Your task to perform on an android device: turn off notifications settings in the gmail app Image 0: 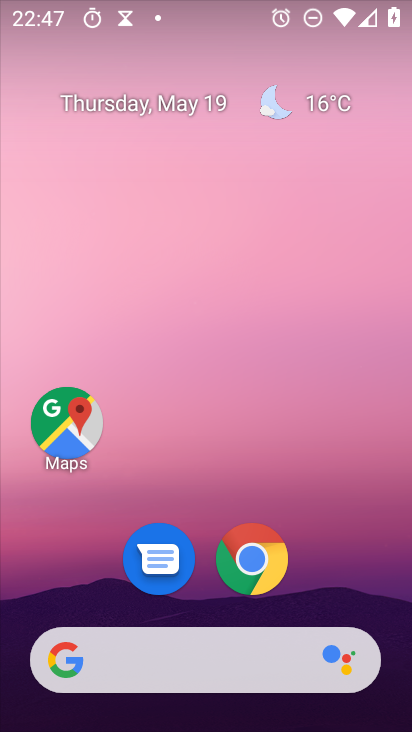
Step 0: drag from (212, 722) to (205, 143)
Your task to perform on an android device: turn off notifications settings in the gmail app Image 1: 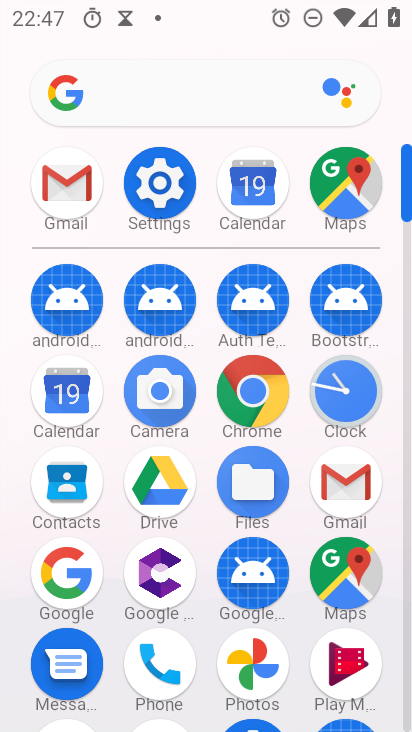
Step 1: click (345, 488)
Your task to perform on an android device: turn off notifications settings in the gmail app Image 2: 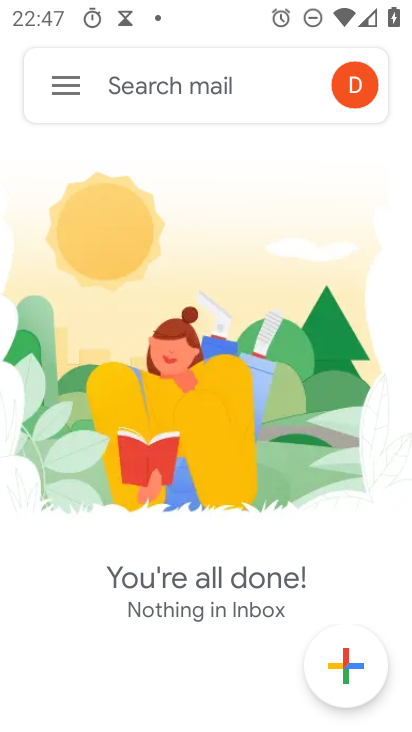
Step 2: click (61, 92)
Your task to perform on an android device: turn off notifications settings in the gmail app Image 3: 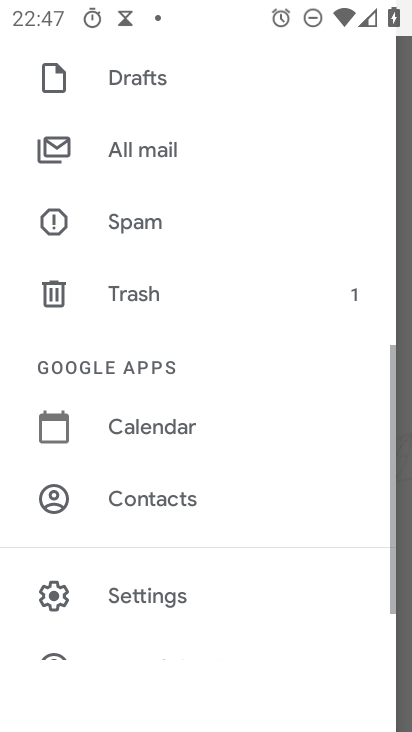
Step 3: drag from (188, 642) to (194, 324)
Your task to perform on an android device: turn off notifications settings in the gmail app Image 4: 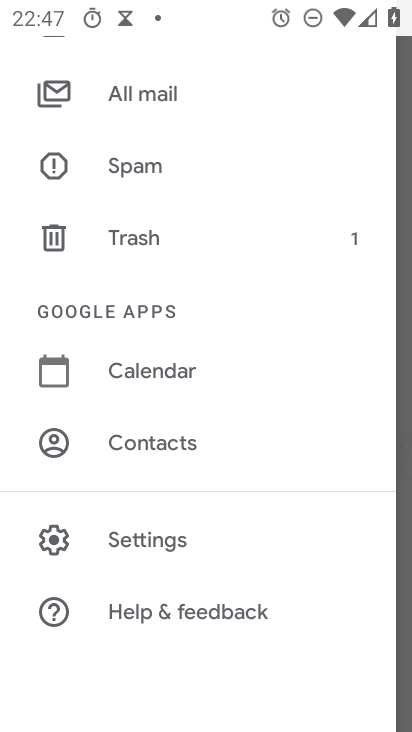
Step 4: click (163, 542)
Your task to perform on an android device: turn off notifications settings in the gmail app Image 5: 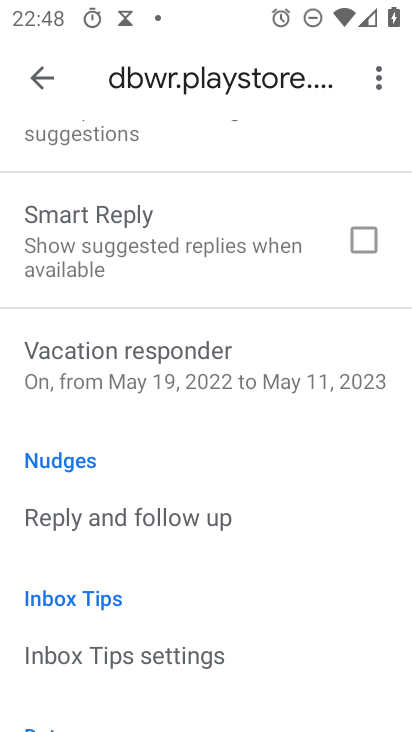
Step 5: drag from (199, 153) to (269, 601)
Your task to perform on an android device: turn off notifications settings in the gmail app Image 6: 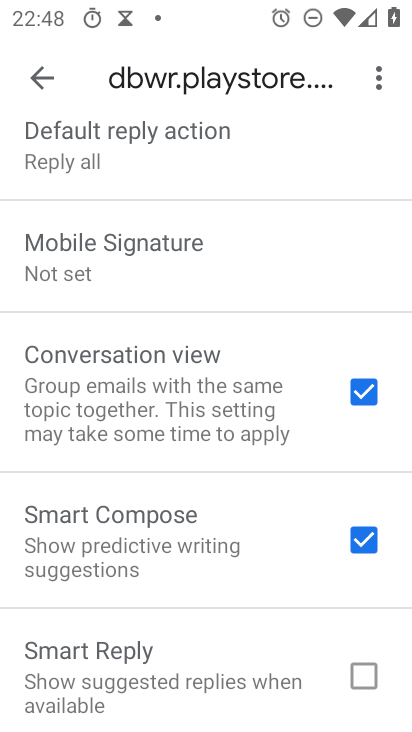
Step 6: drag from (208, 193) to (210, 578)
Your task to perform on an android device: turn off notifications settings in the gmail app Image 7: 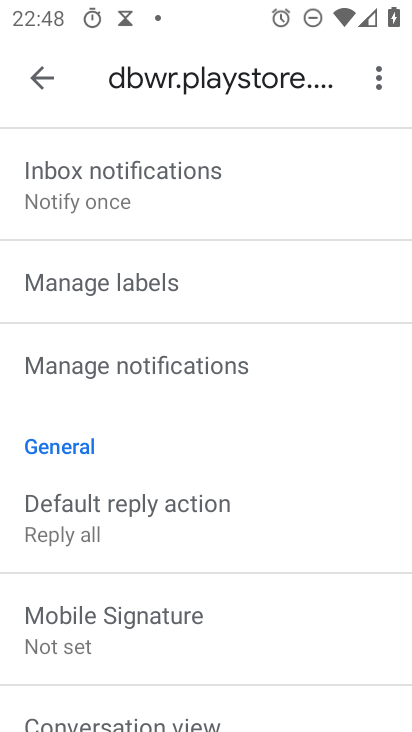
Step 7: drag from (241, 219) to (240, 489)
Your task to perform on an android device: turn off notifications settings in the gmail app Image 8: 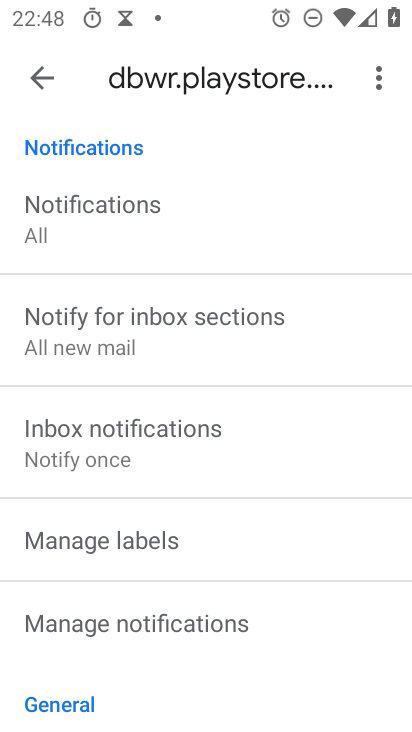
Step 8: drag from (260, 205) to (274, 392)
Your task to perform on an android device: turn off notifications settings in the gmail app Image 9: 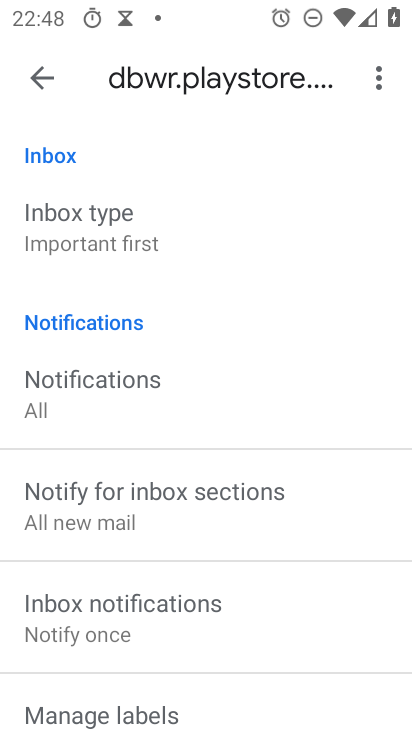
Step 9: drag from (265, 206) to (283, 329)
Your task to perform on an android device: turn off notifications settings in the gmail app Image 10: 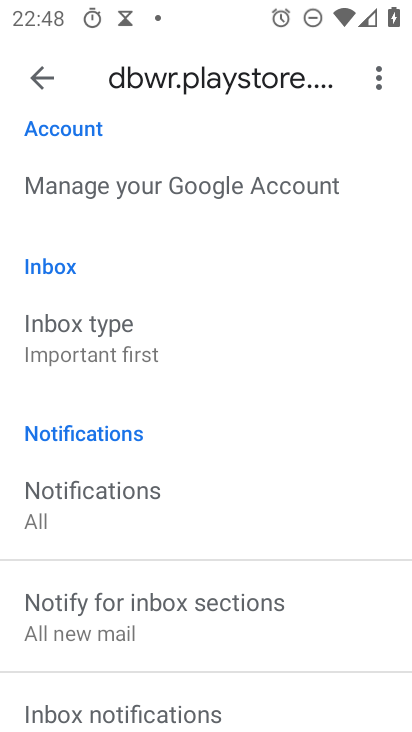
Step 10: click (154, 496)
Your task to perform on an android device: turn off notifications settings in the gmail app Image 11: 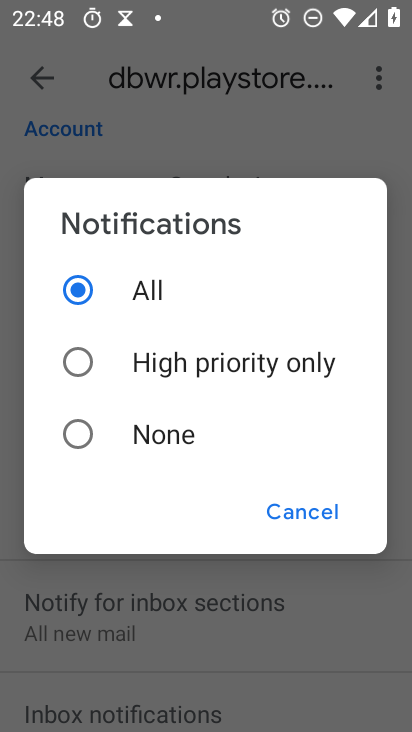
Step 11: click (84, 435)
Your task to perform on an android device: turn off notifications settings in the gmail app Image 12: 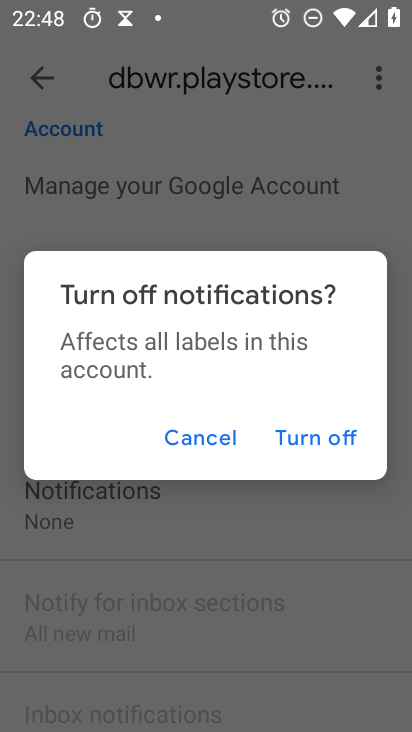
Step 12: click (297, 434)
Your task to perform on an android device: turn off notifications settings in the gmail app Image 13: 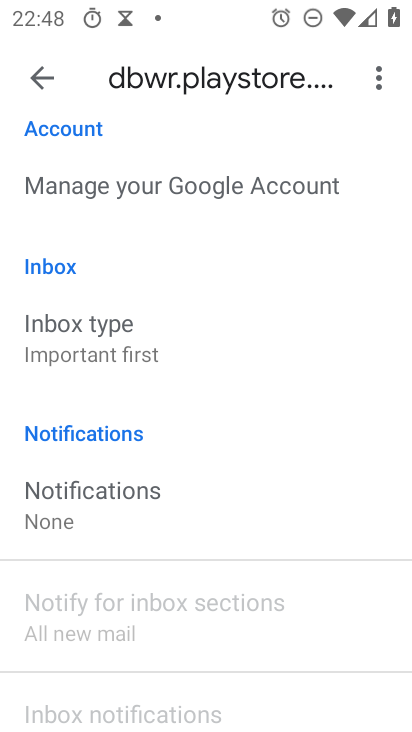
Step 13: task complete